Your task to perform on an android device: Is it going to rain tomorrow? Image 0: 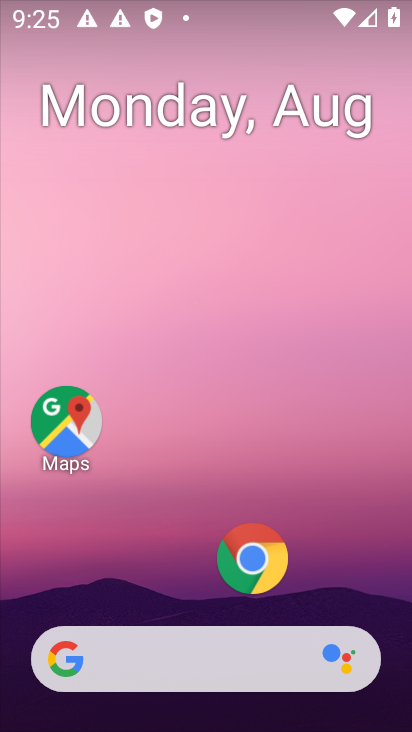
Step 0: press home button
Your task to perform on an android device: Is it going to rain tomorrow? Image 1: 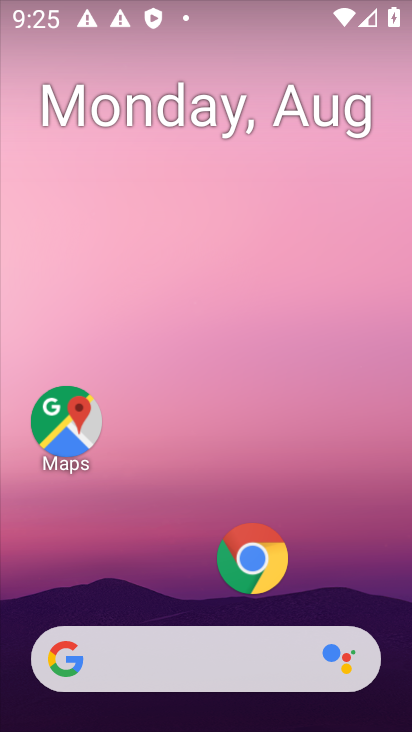
Step 1: drag from (15, 266) to (409, 316)
Your task to perform on an android device: Is it going to rain tomorrow? Image 2: 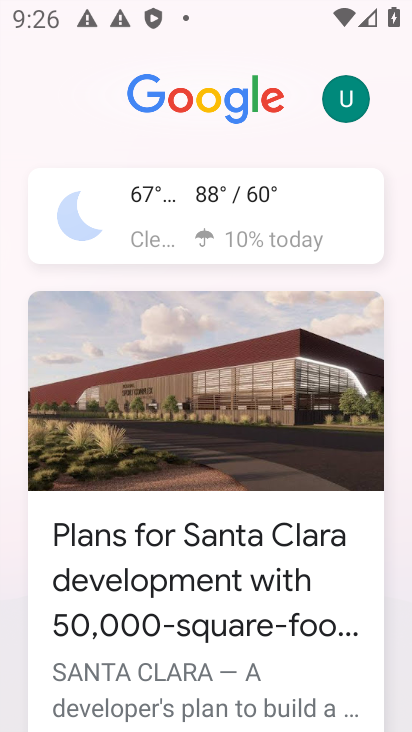
Step 2: click (236, 206)
Your task to perform on an android device: Is it going to rain tomorrow? Image 3: 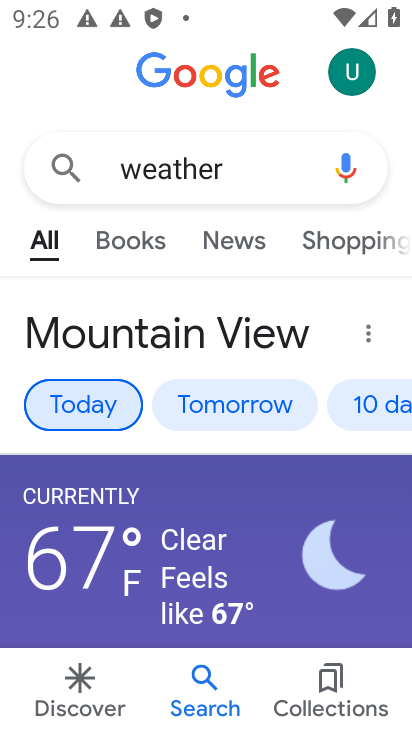
Step 3: click (230, 404)
Your task to perform on an android device: Is it going to rain tomorrow? Image 4: 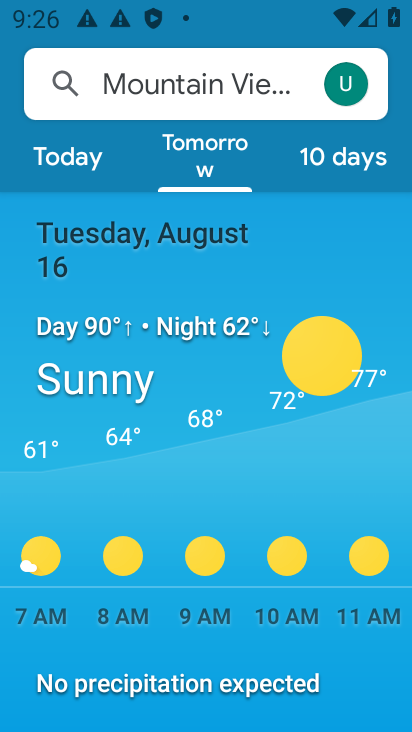
Step 4: task complete